Your task to perform on an android device: read, delete, or share a saved page in the chrome app Image 0: 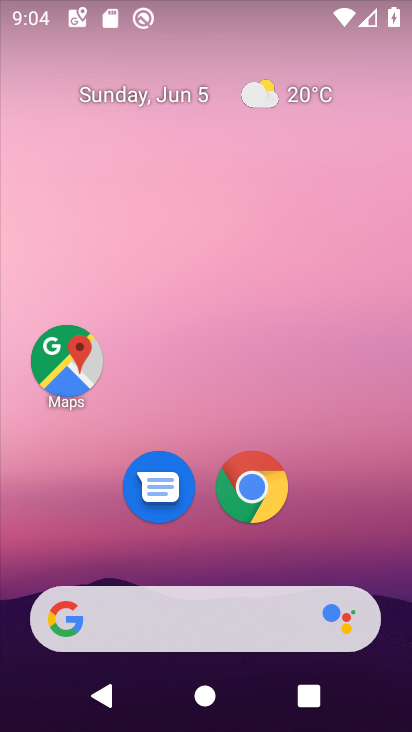
Step 0: drag from (319, 506) to (332, 234)
Your task to perform on an android device: read, delete, or share a saved page in the chrome app Image 1: 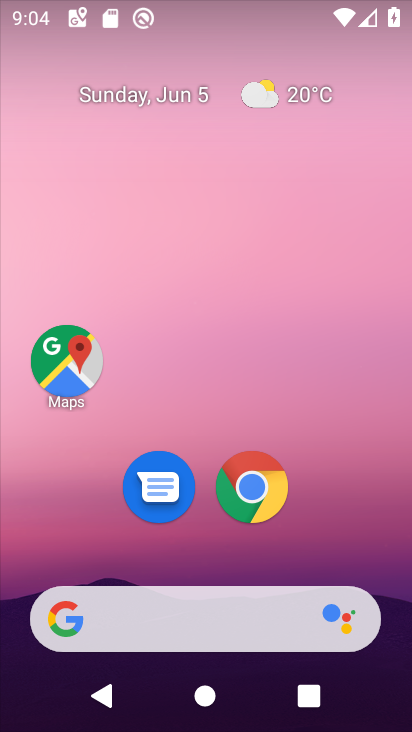
Step 1: click (248, 474)
Your task to perform on an android device: read, delete, or share a saved page in the chrome app Image 2: 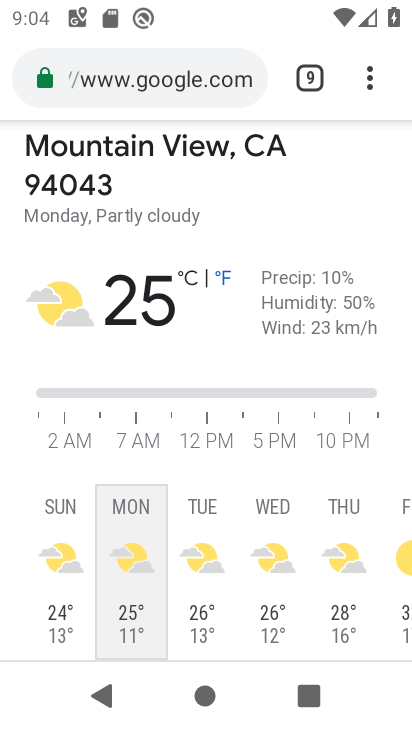
Step 2: click (376, 78)
Your task to perform on an android device: read, delete, or share a saved page in the chrome app Image 3: 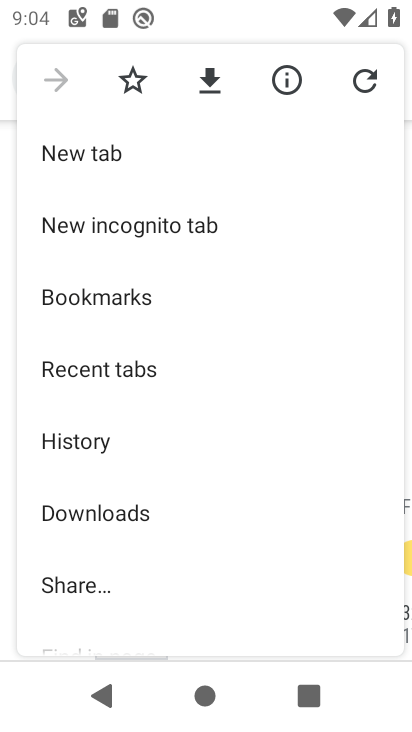
Step 3: click (90, 510)
Your task to perform on an android device: read, delete, or share a saved page in the chrome app Image 4: 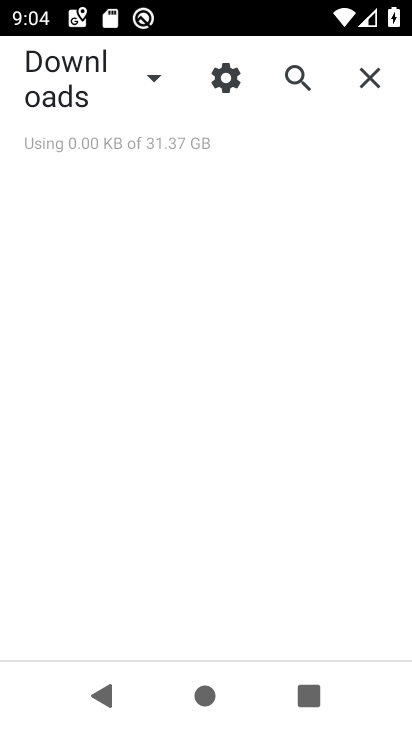
Step 4: click (163, 65)
Your task to perform on an android device: read, delete, or share a saved page in the chrome app Image 5: 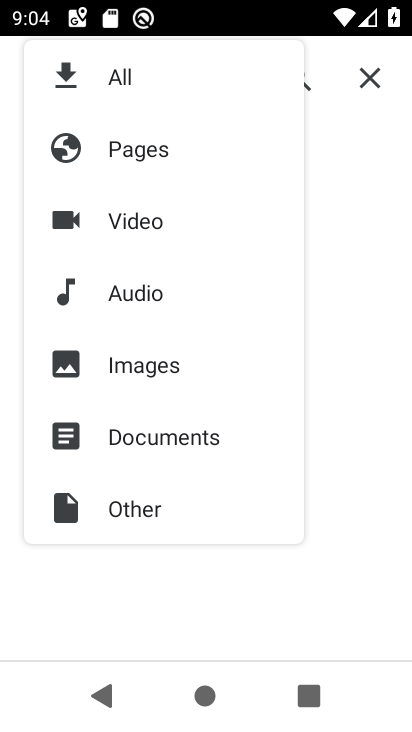
Step 5: click (154, 150)
Your task to perform on an android device: read, delete, or share a saved page in the chrome app Image 6: 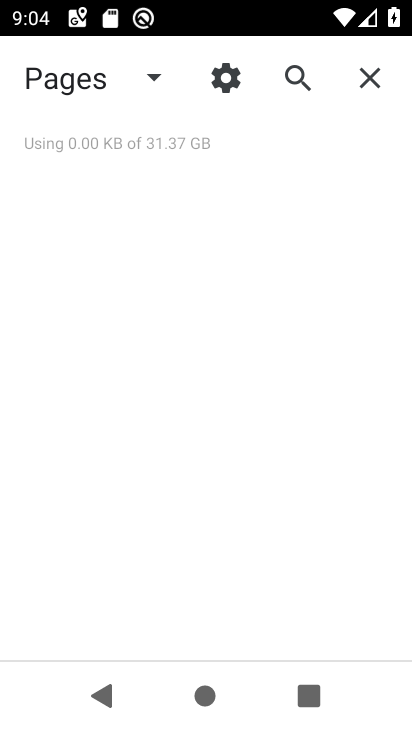
Step 6: task complete